Your task to perform on an android device: Add logitech g903 to the cart on ebay.com, then select checkout. Image 0: 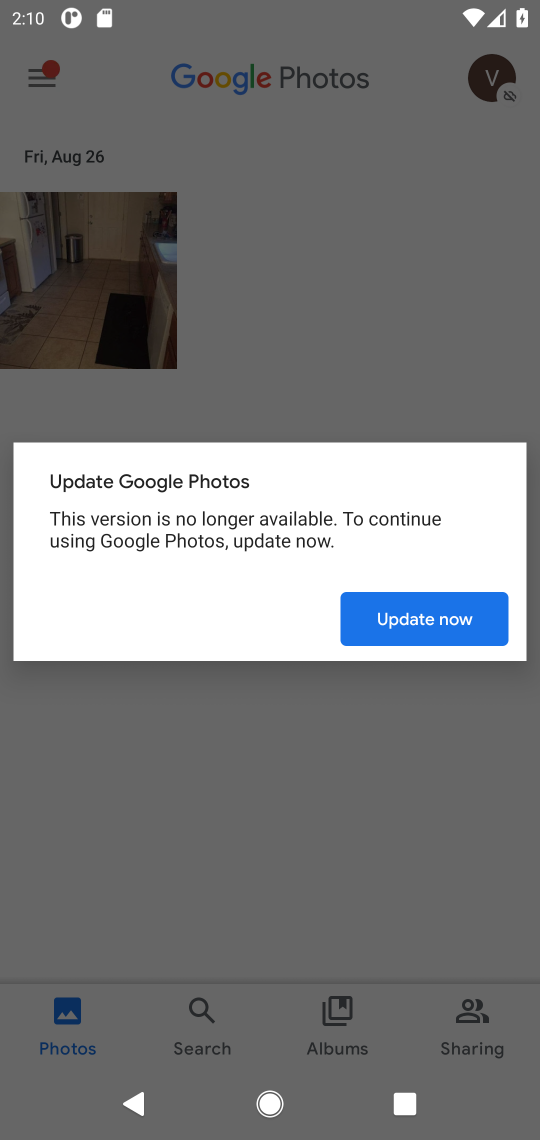
Step 0: press home button
Your task to perform on an android device: Add logitech g903 to the cart on ebay.com, then select checkout. Image 1: 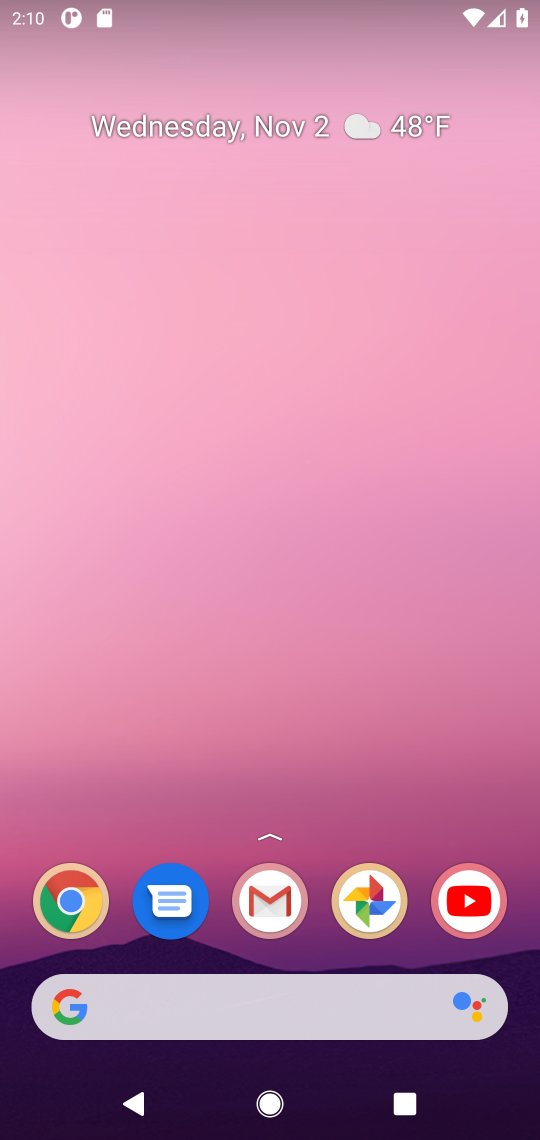
Step 1: drag from (319, 950) to (340, 136)
Your task to perform on an android device: Add logitech g903 to the cart on ebay.com, then select checkout. Image 2: 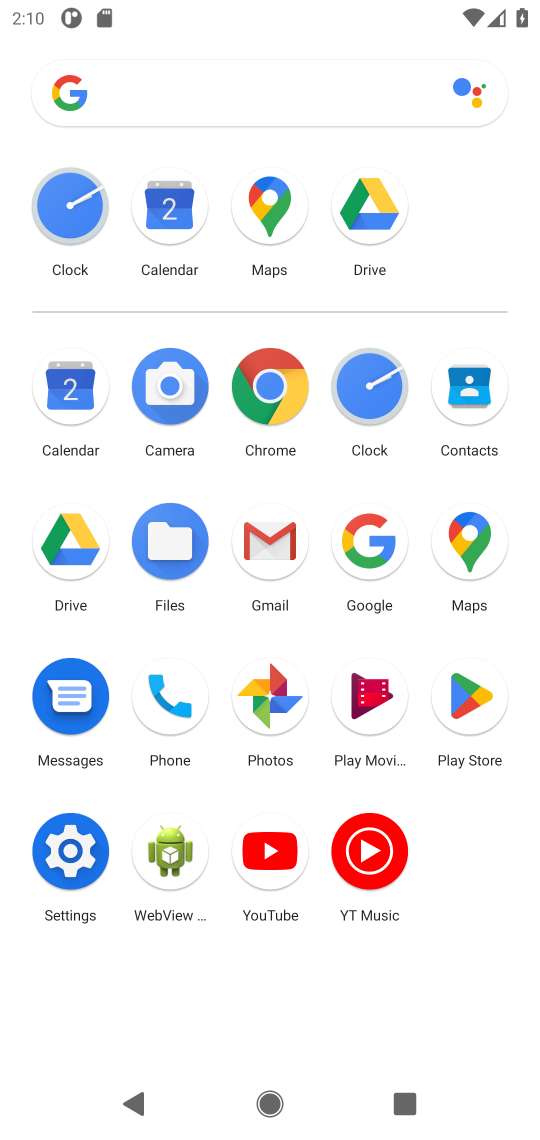
Step 2: click (272, 384)
Your task to perform on an android device: Add logitech g903 to the cart on ebay.com, then select checkout. Image 3: 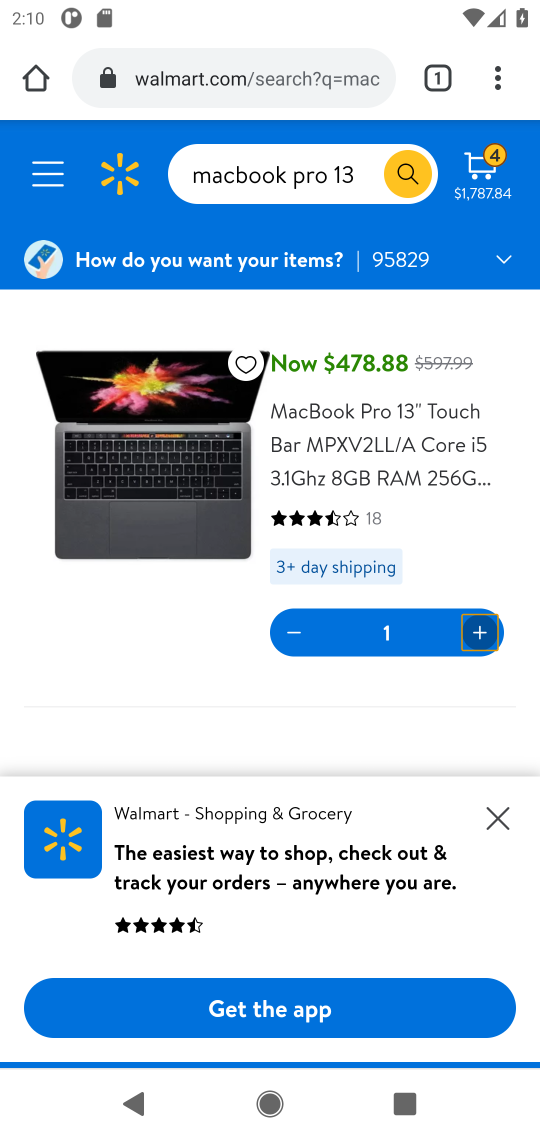
Step 3: click (289, 72)
Your task to perform on an android device: Add logitech g903 to the cart on ebay.com, then select checkout. Image 4: 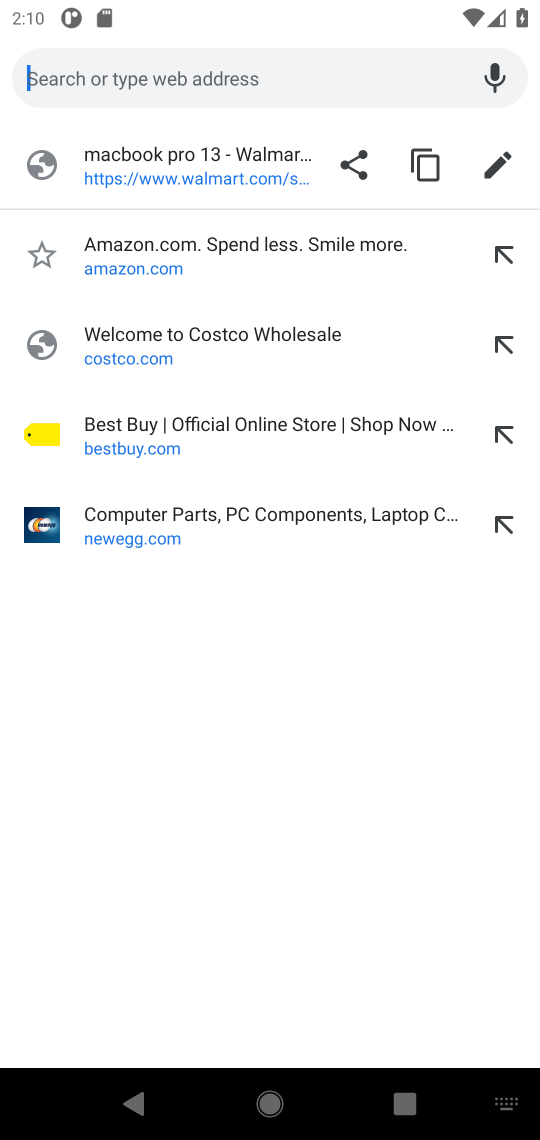
Step 4: type "ebay.com"
Your task to perform on an android device: Add logitech g903 to the cart on ebay.com, then select checkout. Image 5: 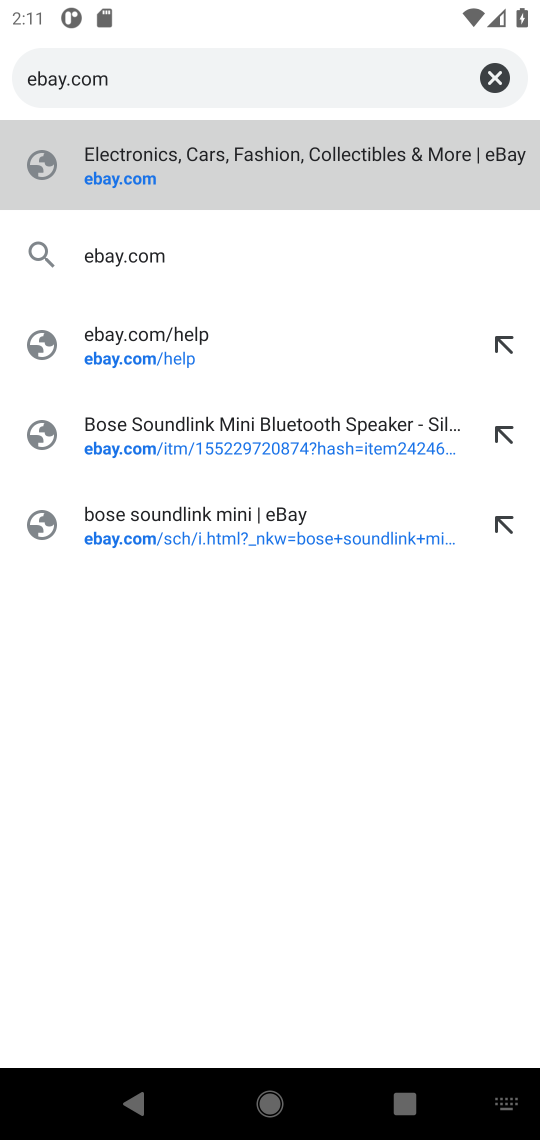
Step 5: press enter
Your task to perform on an android device: Add logitech g903 to the cart on ebay.com, then select checkout. Image 6: 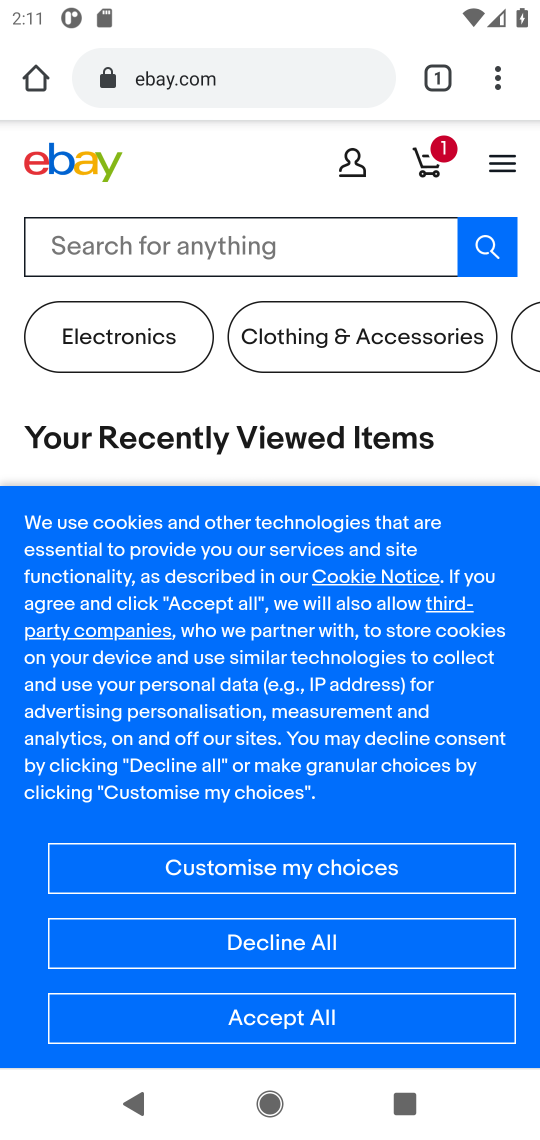
Step 6: click (310, 251)
Your task to perform on an android device: Add logitech g903 to the cart on ebay.com, then select checkout. Image 7: 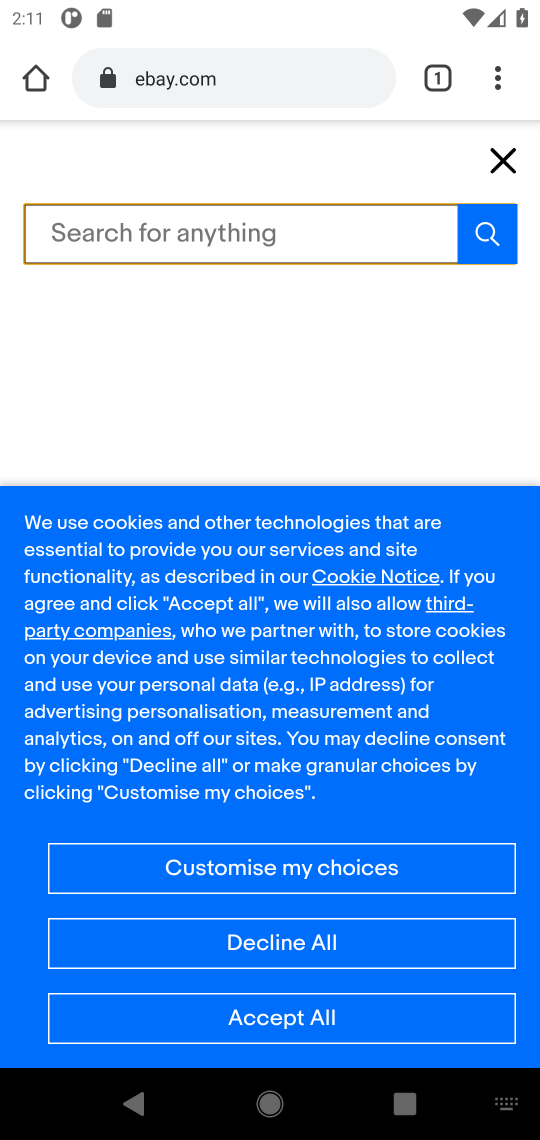
Step 7: type "logitech g903"
Your task to perform on an android device: Add logitech g903 to the cart on ebay.com, then select checkout. Image 8: 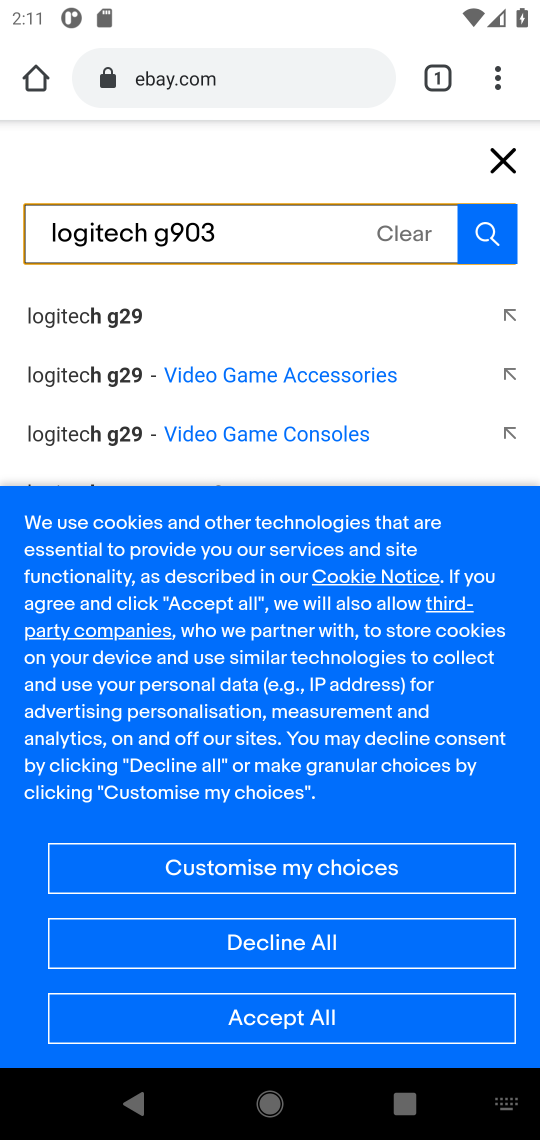
Step 8: press enter
Your task to perform on an android device: Add logitech g903 to the cart on ebay.com, then select checkout. Image 9: 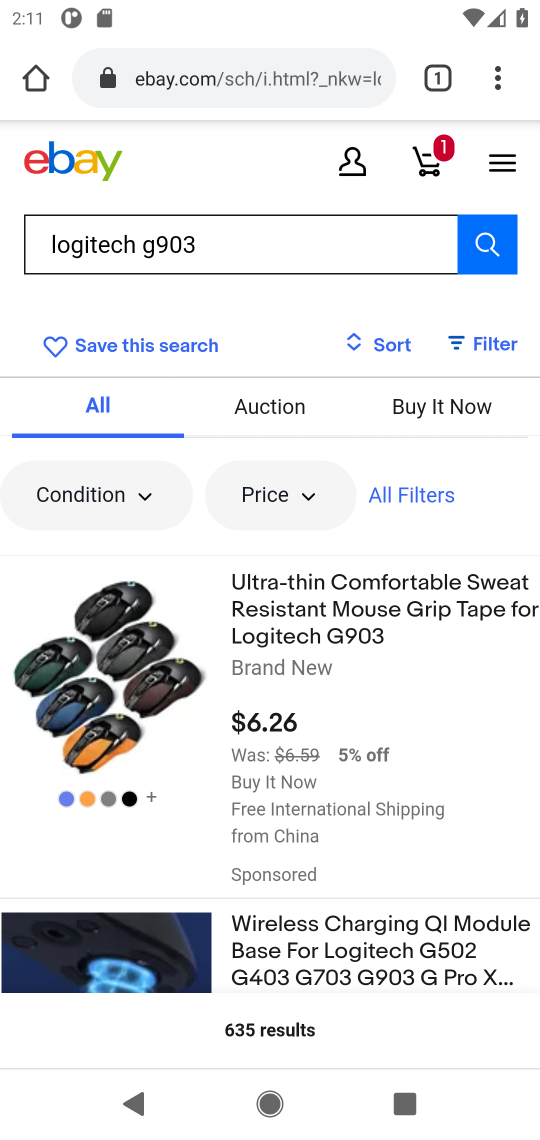
Step 9: drag from (215, 871) to (296, 392)
Your task to perform on an android device: Add logitech g903 to the cart on ebay.com, then select checkout. Image 10: 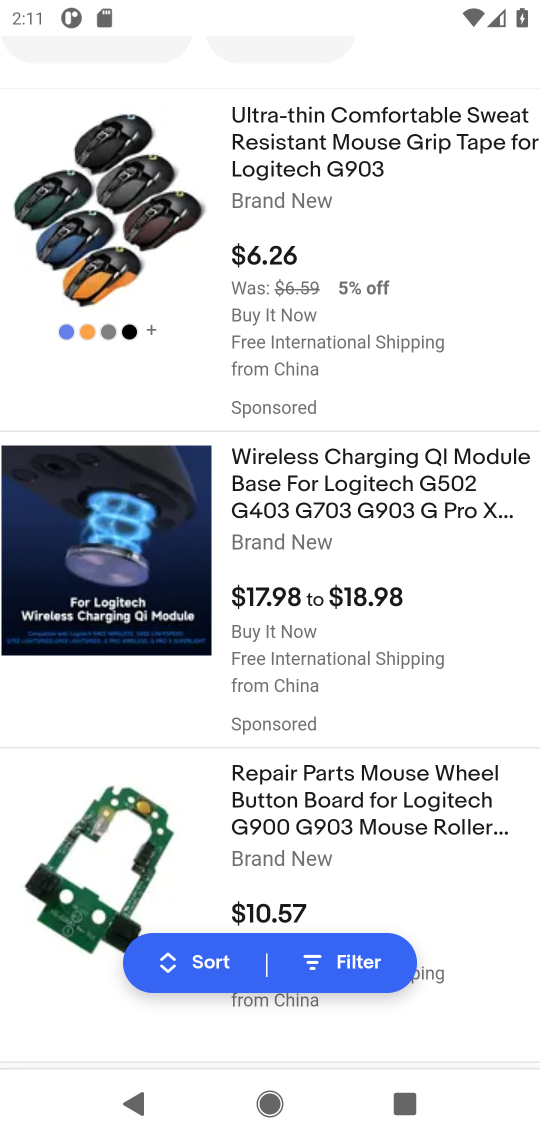
Step 10: drag from (404, 295) to (268, 890)
Your task to perform on an android device: Add logitech g903 to the cart on ebay.com, then select checkout. Image 11: 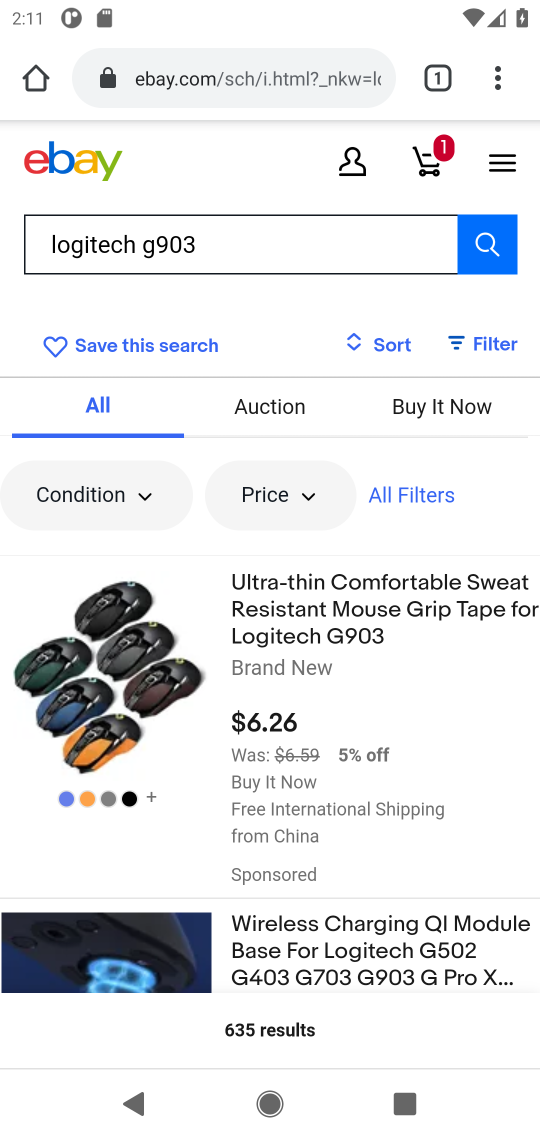
Step 11: drag from (396, 938) to (439, 527)
Your task to perform on an android device: Add logitech g903 to the cart on ebay.com, then select checkout. Image 12: 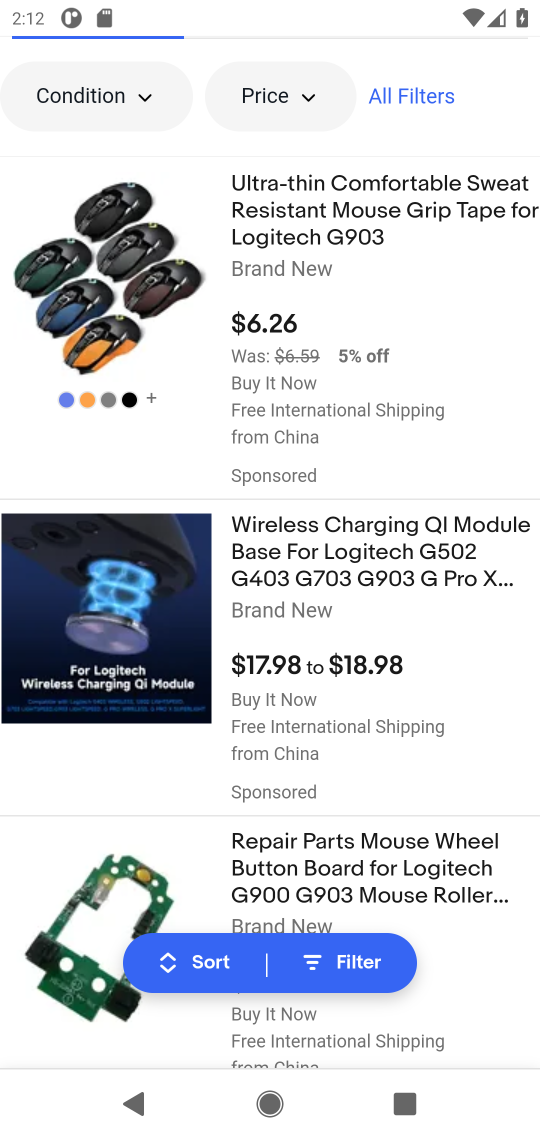
Step 12: drag from (426, 1015) to (408, 490)
Your task to perform on an android device: Add logitech g903 to the cart on ebay.com, then select checkout. Image 13: 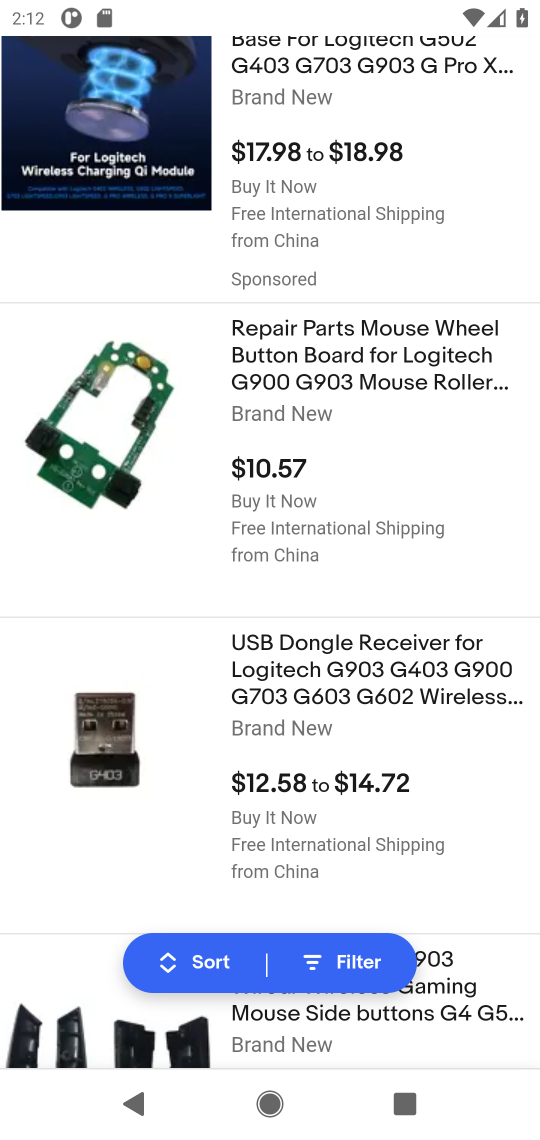
Step 13: drag from (465, 847) to (472, 626)
Your task to perform on an android device: Add logitech g903 to the cart on ebay.com, then select checkout. Image 14: 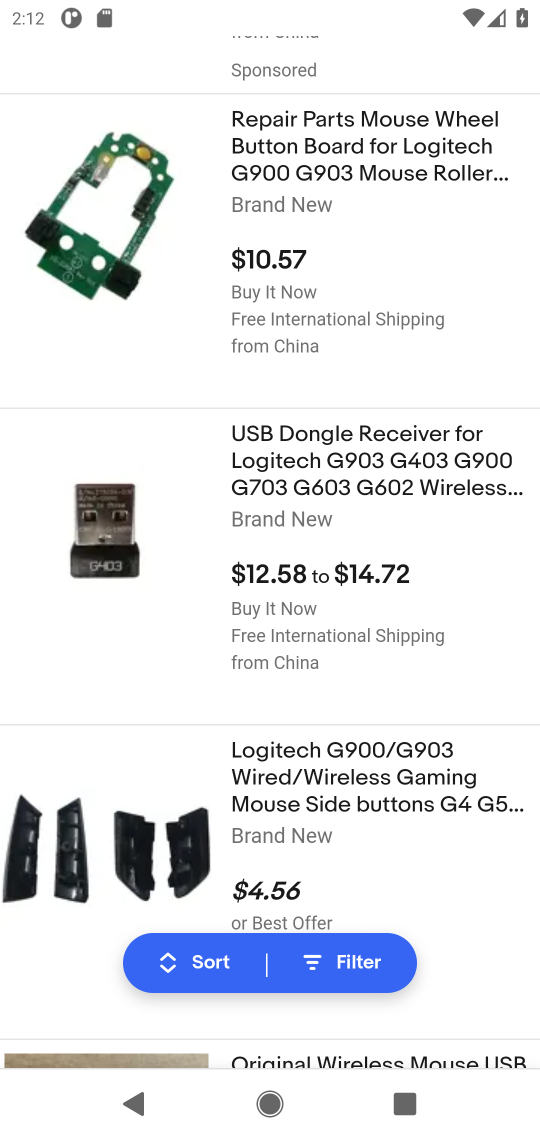
Step 14: drag from (417, 809) to (327, 230)
Your task to perform on an android device: Add logitech g903 to the cart on ebay.com, then select checkout. Image 15: 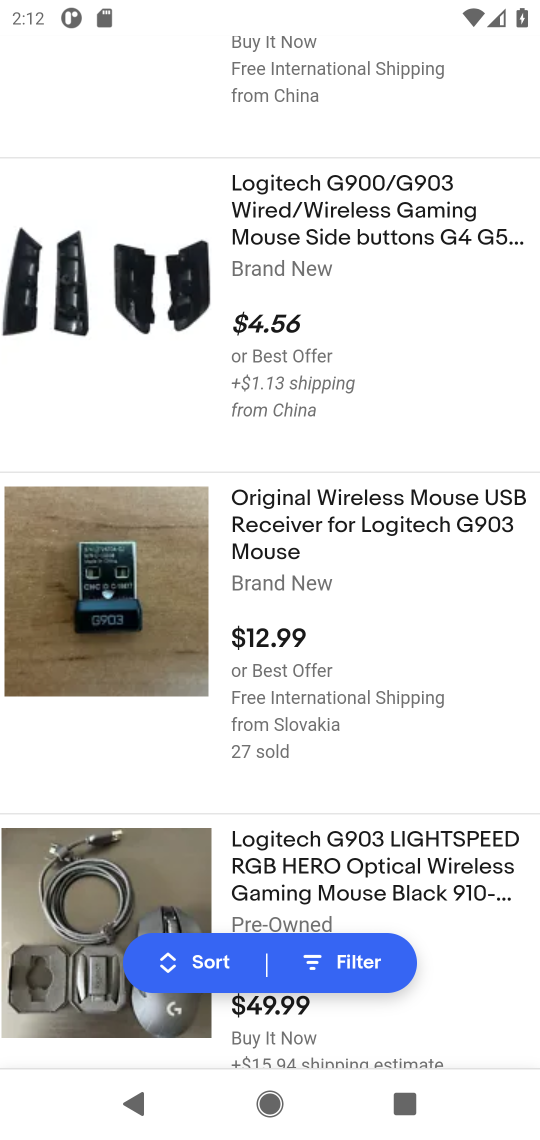
Step 15: drag from (418, 706) to (429, 337)
Your task to perform on an android device: Add logitech g903 to the cart on ebay.com, then select checkout. Image 16: 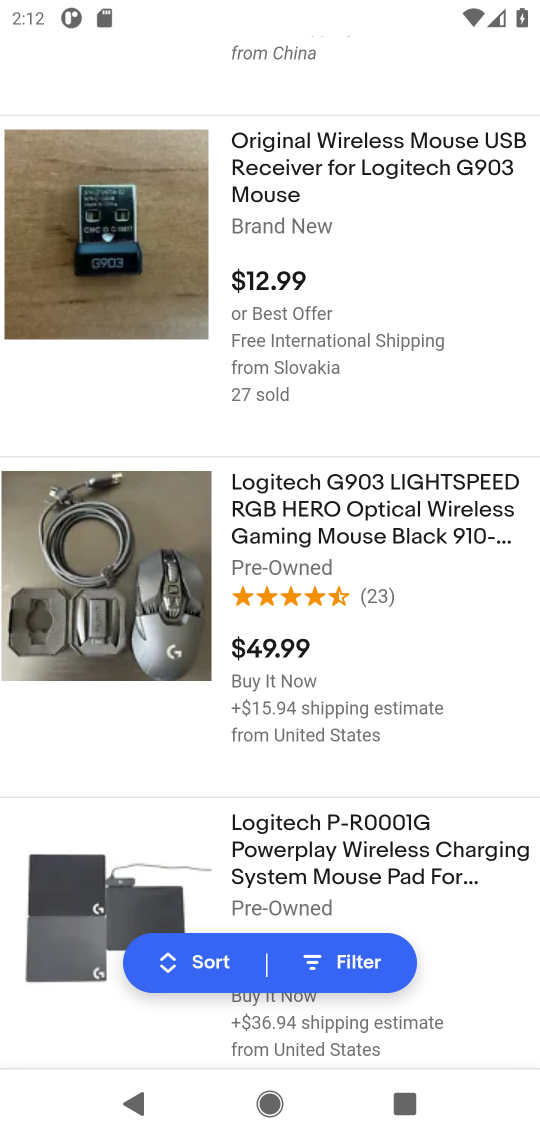
Step 16: click (167, 618)
Your task to perform on an android device: Add logitech g903 to the cart on ebay.com, then select checkout. Image 17: 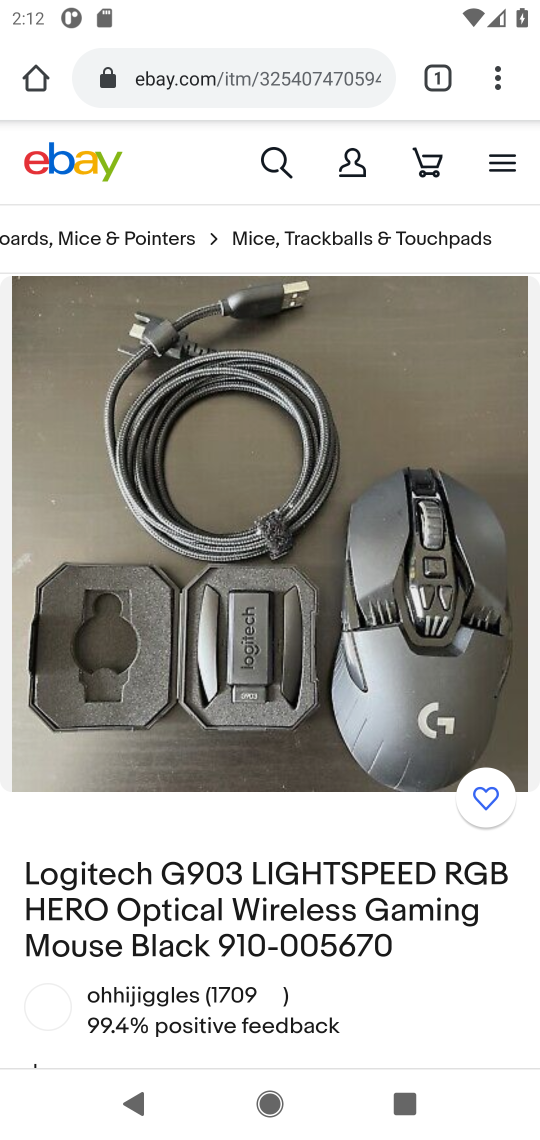
Step 17: drag from (297, 725) to (383, 351)
Your task to perform on an android device: Add logitech g903 to the cart on ebay.com, then select checkout. Image 18: 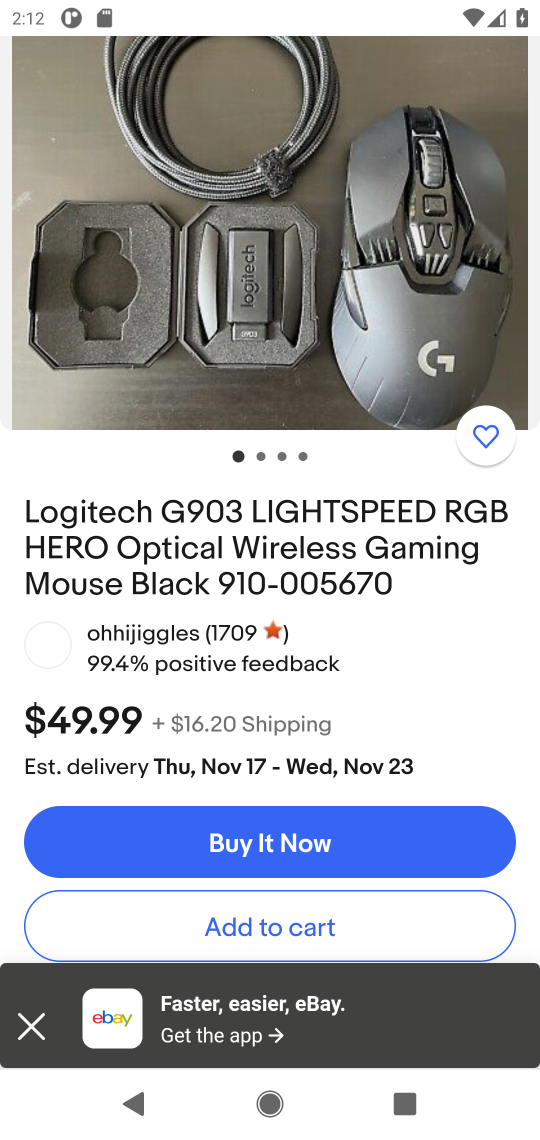
Step 18: click (345, 920)
Your task to perform on an android device: Add logitech g903 to the cart on ebay.com, then select checkout. Image 19: 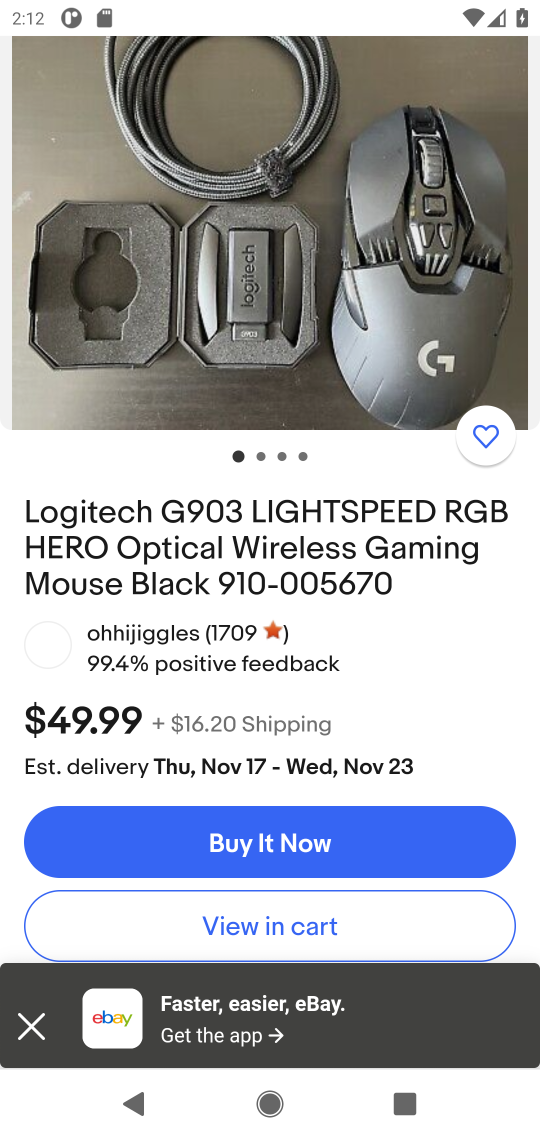
Step 19: click (415, 908)
Your task to perform on an android device: Add logitech g903 to the cart on ebay.com, then select checkout. Image 20: 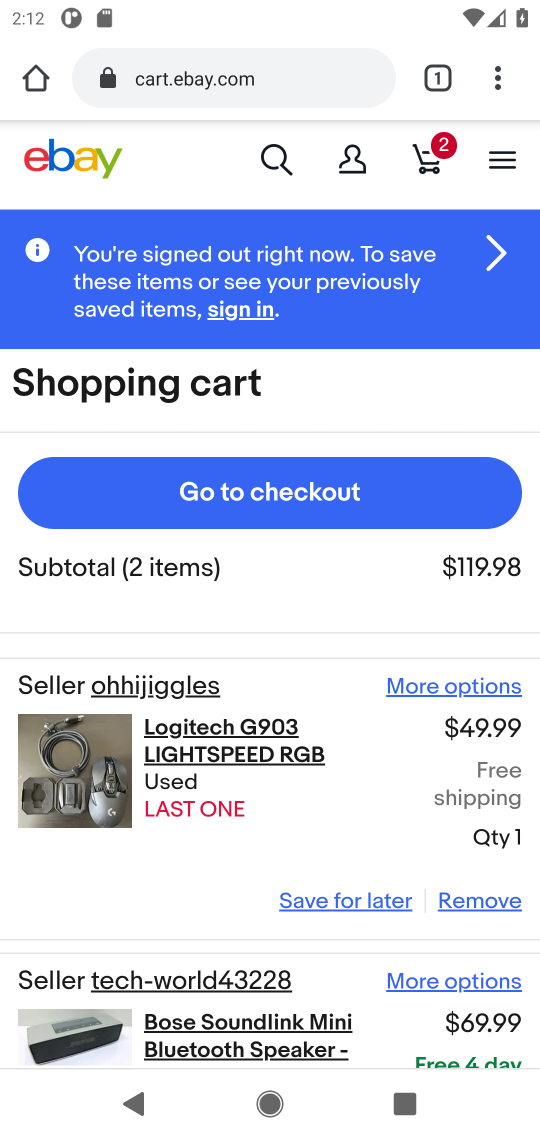
Step 20: click (402, 499)
Your task to perform on an android device: Add logitech g903 to the cart on ebay.com, then select checkout. Image 21: 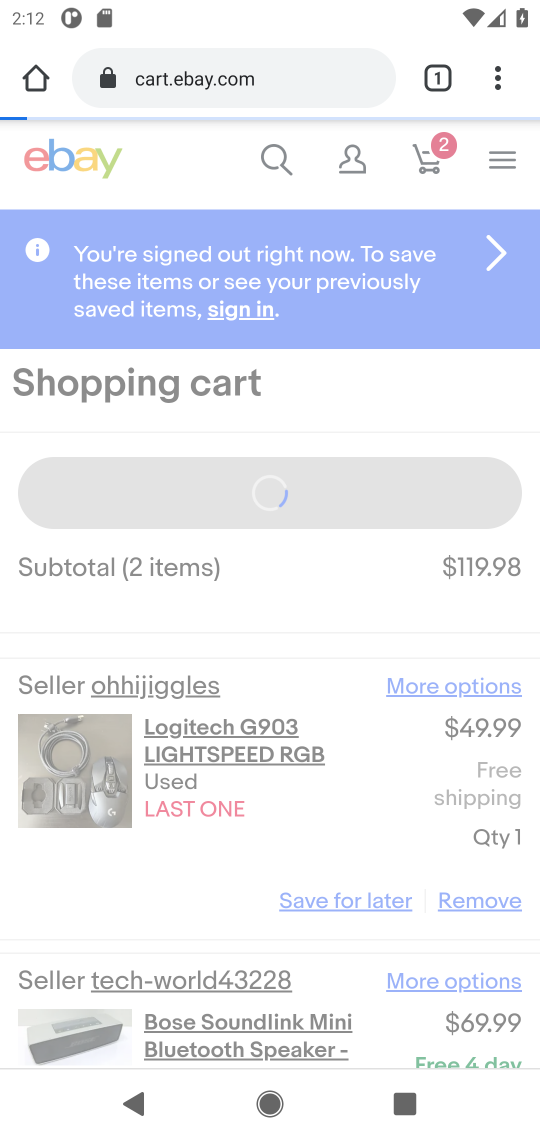
Step 21: task complete